Your task to perform on an android device: clear history in the chrome app Image 0: 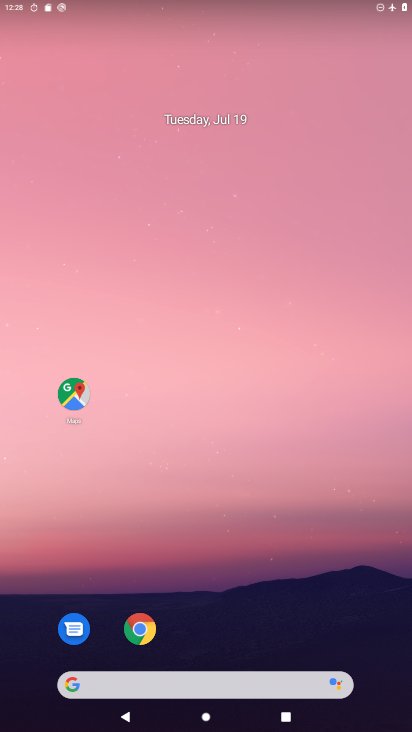
Step 0: drag from (292, 659) to (200, 166)
Your task to perform on an android device: clear history in the chrome app Image 1: 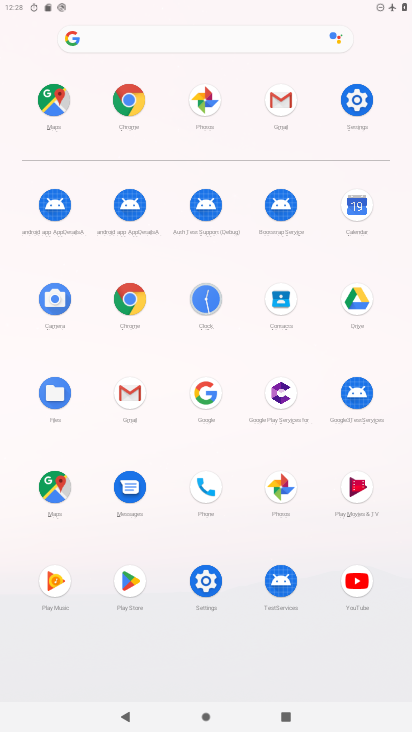
Step 1: click (126, 295)
Your task to perform on an android device: clear history in the chrome app Image 2: 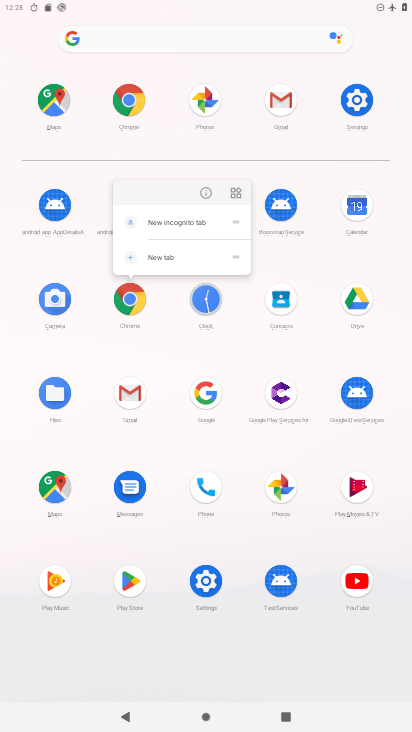
Step 2: click (128, 298)
Your task to perform on an android device: clear history in the chrome app Image 3: 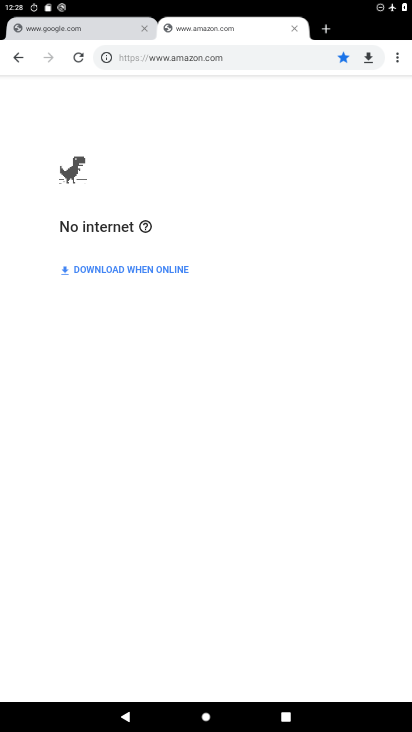
Step 3: task complete